Your task to perform on an android device: change the clock display to show seconds Image 0: 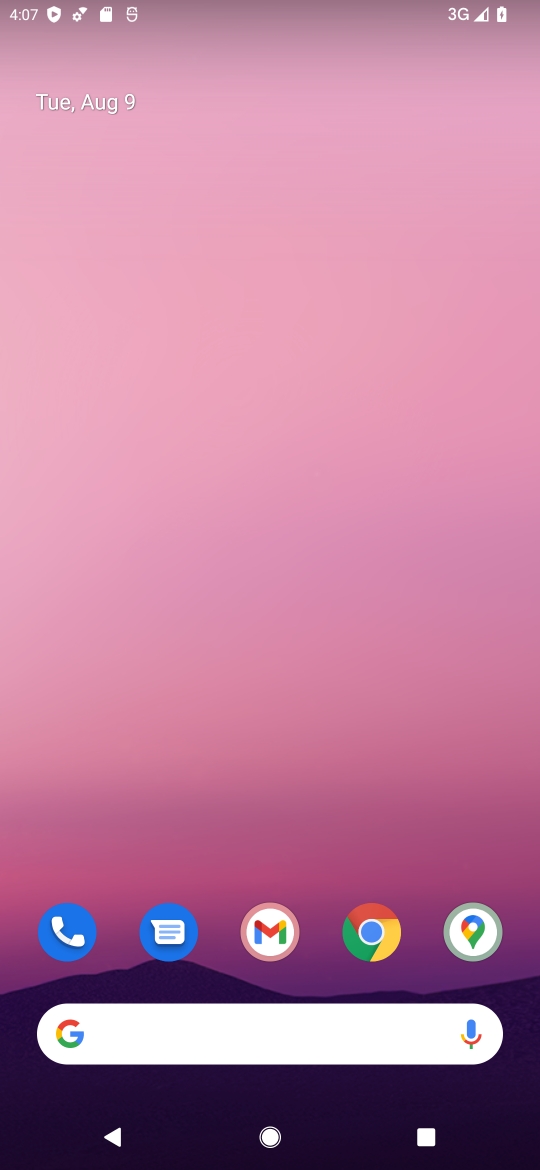
Step 0: drag from (254, 1032) to (378, 6)
Your task to perform on an android device: change the clock display to show seconds Image 1: 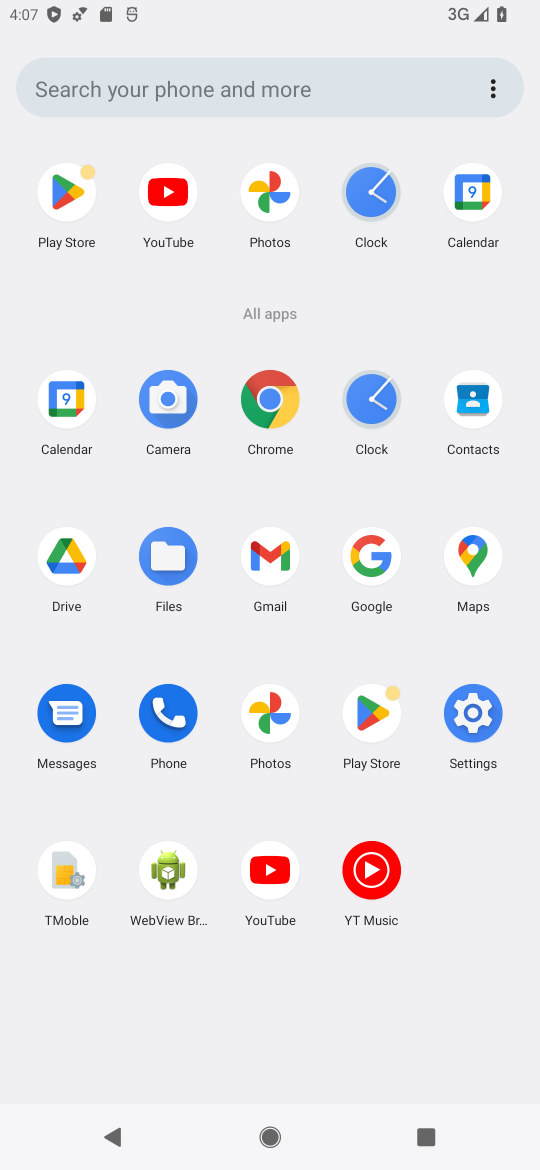
Step 1: click (376, 386)
Your task to perform on an android device: change the clock display to show seconds Image 2: 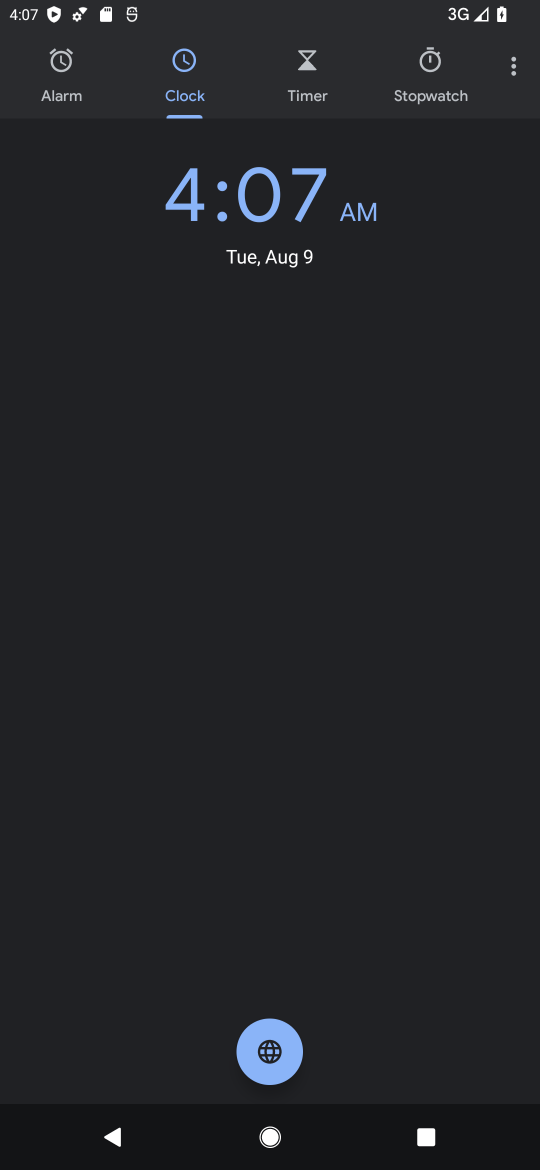
Step 2: click (508, 62)
Your task to perform on an android device: change the clock display to show seconds Image 3: 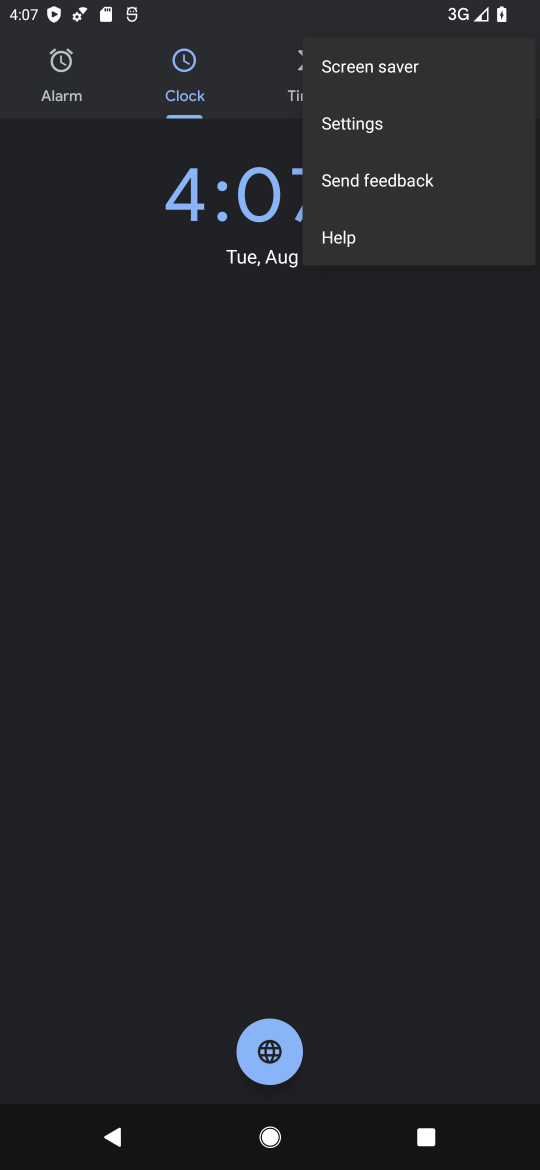
Step 3: click (383, 115)
Your task to perform on an android device: change the clock display to show seconds Image 4: 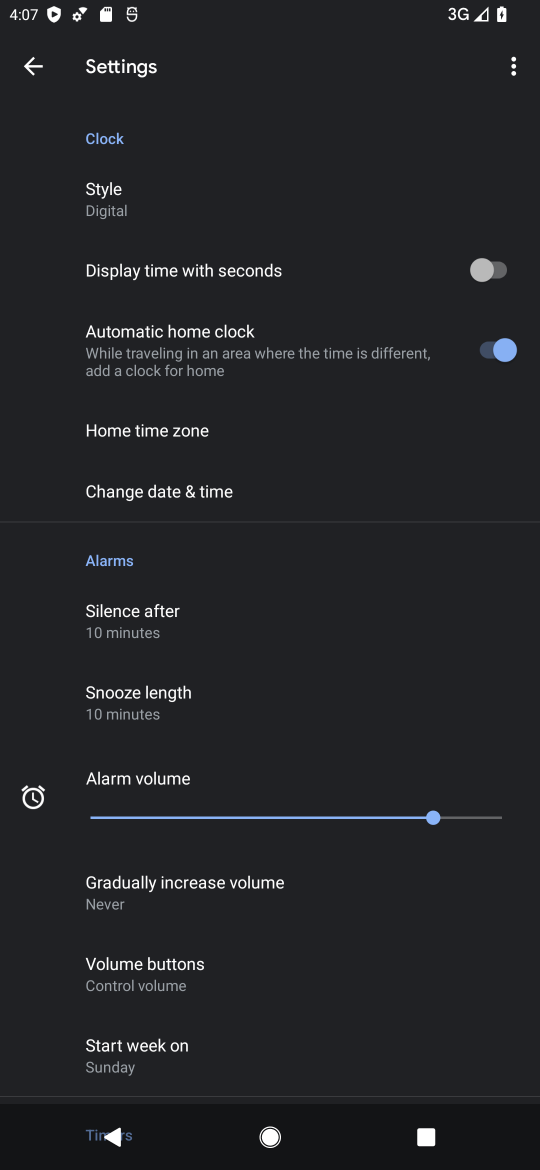
Step 4: click (496, 269)
Your task to perform on an android device: change the clock display to show seconds Image 5: 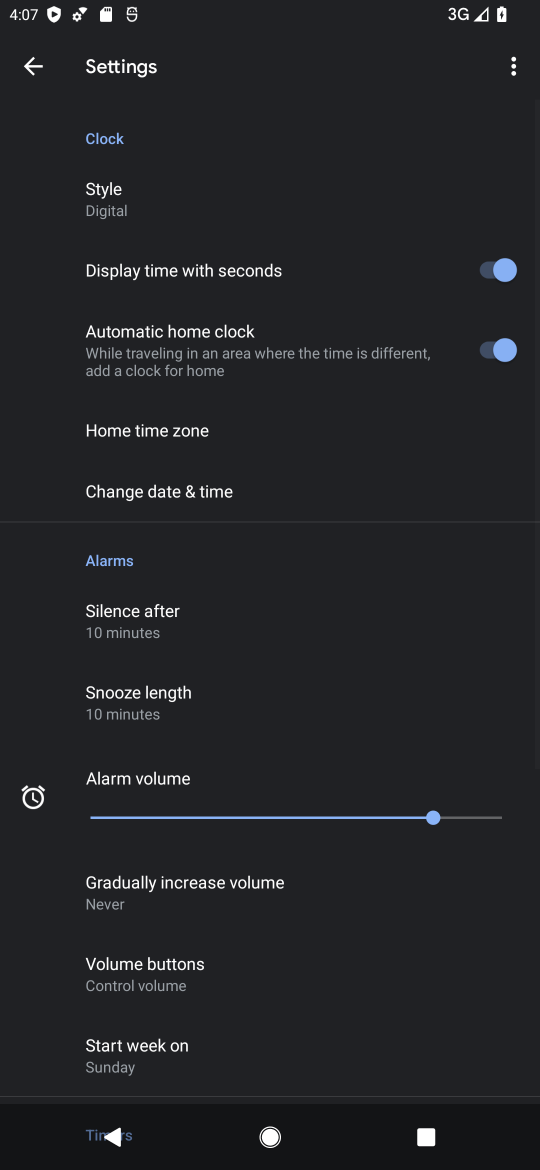
Step 5: task complete